Your task to perform on an android device: move an email to a new category in the gmail app Image 0: 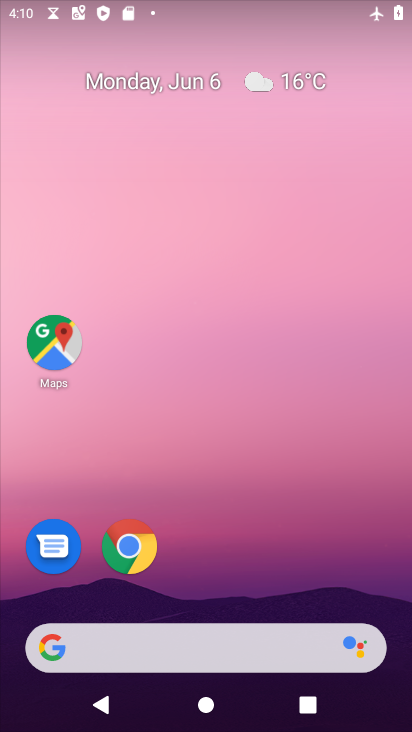
Step 0: drag from (307, 536) to (384, 6)
Your task to perform on an android device: move an email to a new category in the gmail app Image 1: 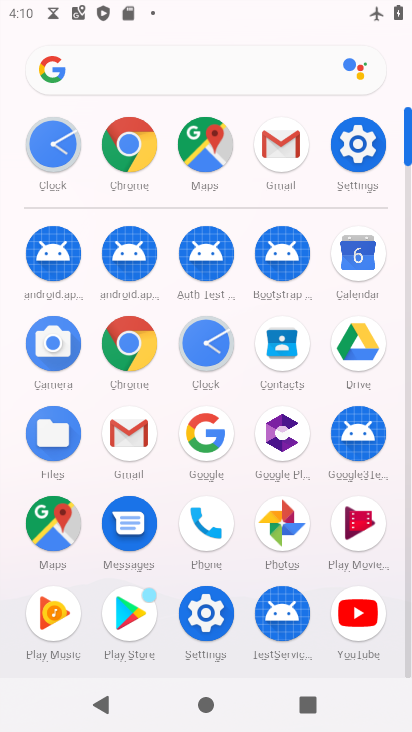
Step 1: click (284, 150)
Your task to perform on an android device: move an email to a new category in the gmail app Image 2: 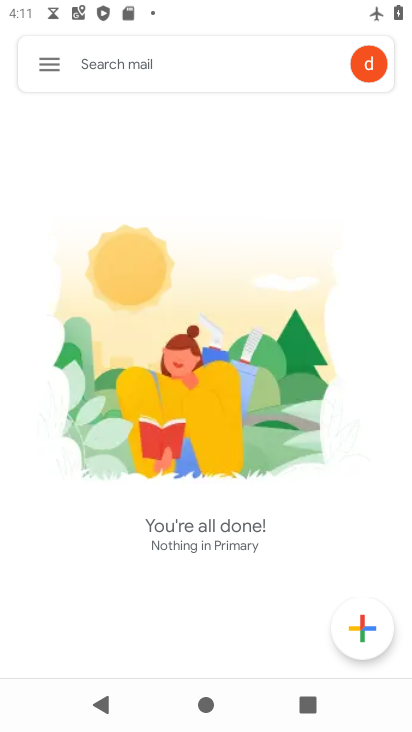
Step 2: click (36, 58)
Your task to perform on an android device: move an email to a new category in the gmail app Image 3: 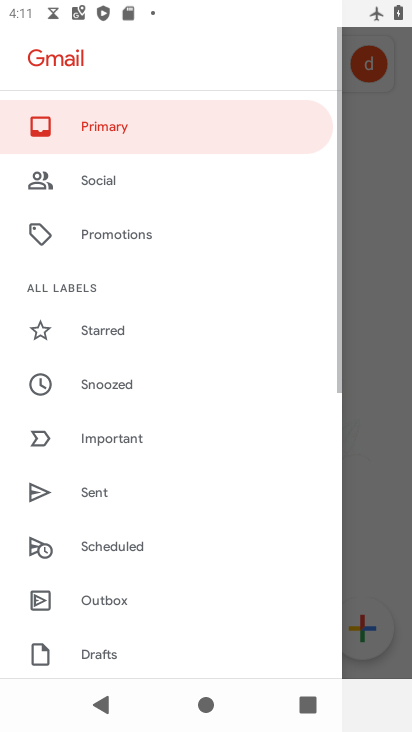
Step 3: drag from (119, 591) to (223, 105)
Your task to perform on an android device: move an email to a new category in the gmail app Image 4: 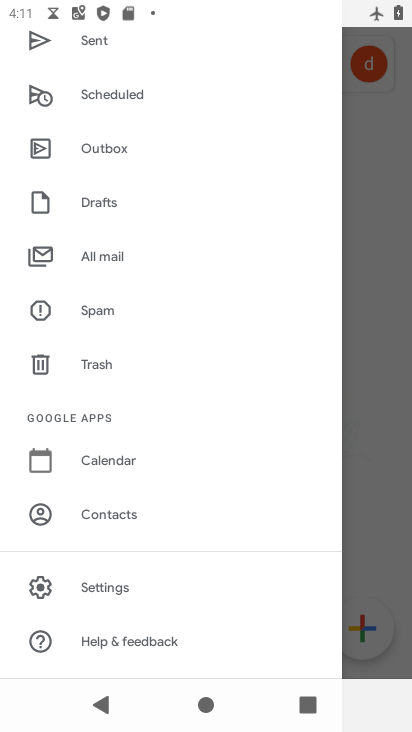
Step 4: drag from (209, 179) to (218, 401)
Your task to perform on an android device: move an email to a new category in the gmail app Image 5: 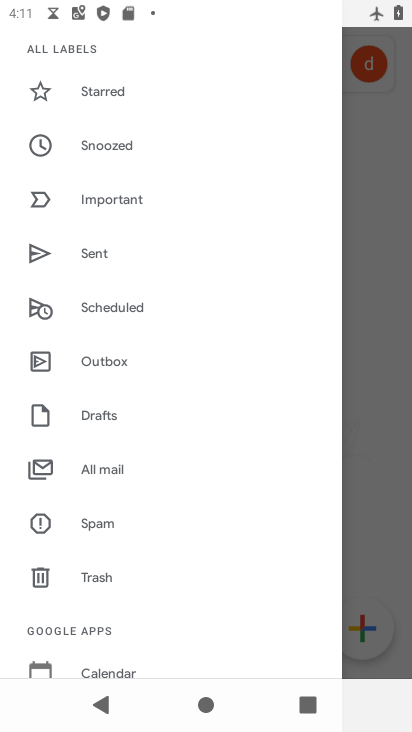
Step 5: click (106, 467)
Your task to perform on an android device: move an email to a new category in the gmail app Image 6: 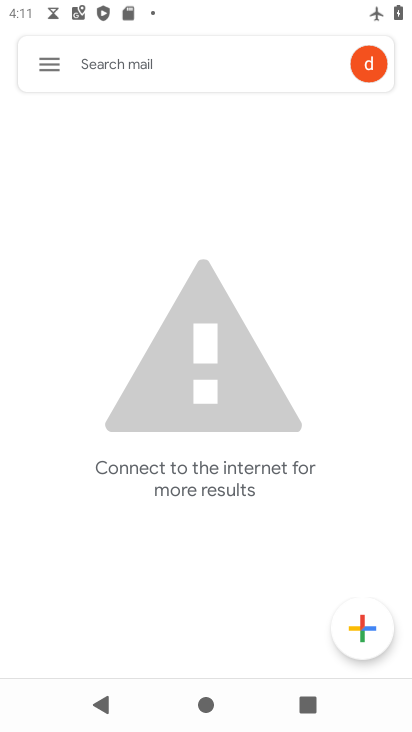
Step 6: task complete